Your task to perform on an android device: Search for pizza restaurants on Maps Image 0: 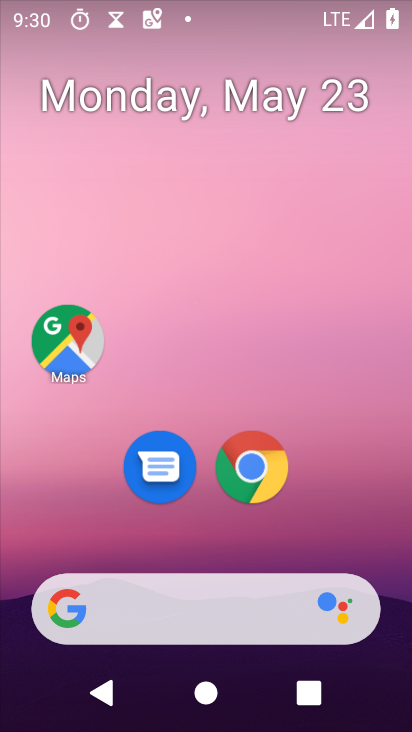
Step 0: click (79, 338)
Your task to perform on an android device: Search for pizza restaurants on Maps Image 1: 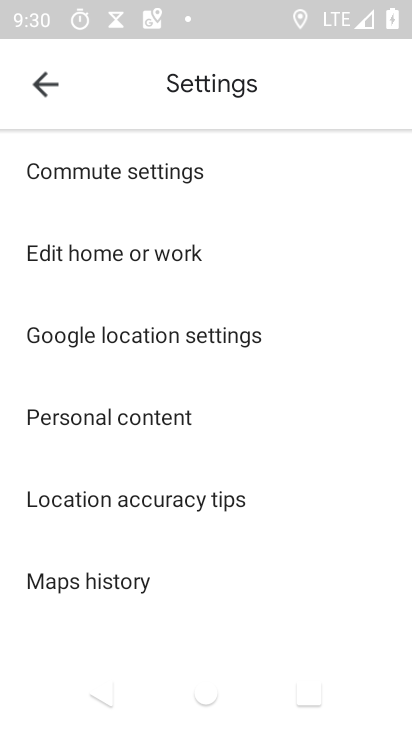
Step 1: click (45, 89)
Your task to perform on an android device: Search for pizza restaurants on Maps Image 2: 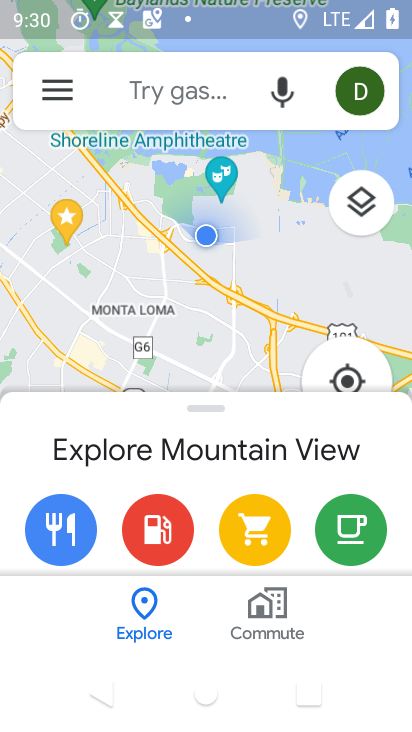
Step 2: click (157, 92)
Your task to perform on an android device: Search for pizza restaurants on Maps Image 3: 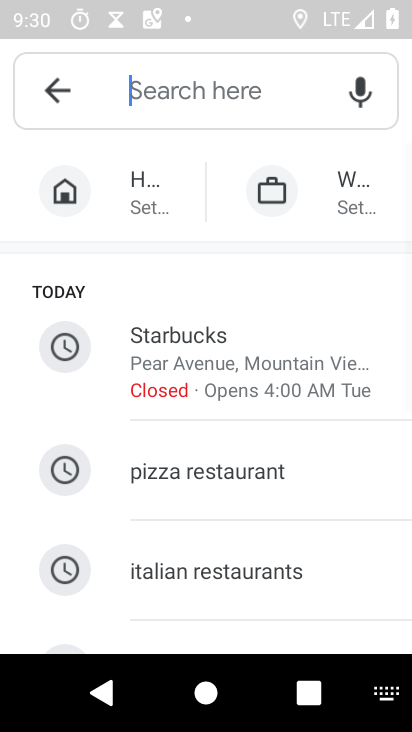
Step 3: click (249, 476)
Your task to perform on an android device: Search for pizza restaurants on Maps Image 4: 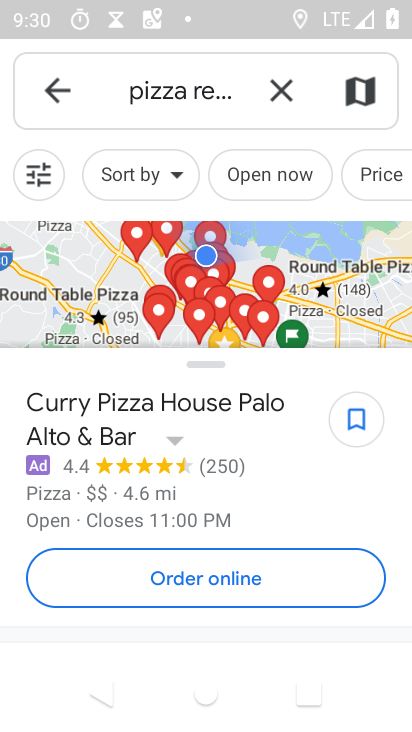
Step 4: task complete